Your task to perform on an android device: Open Google Maps and go to "Timeline" Image 0: 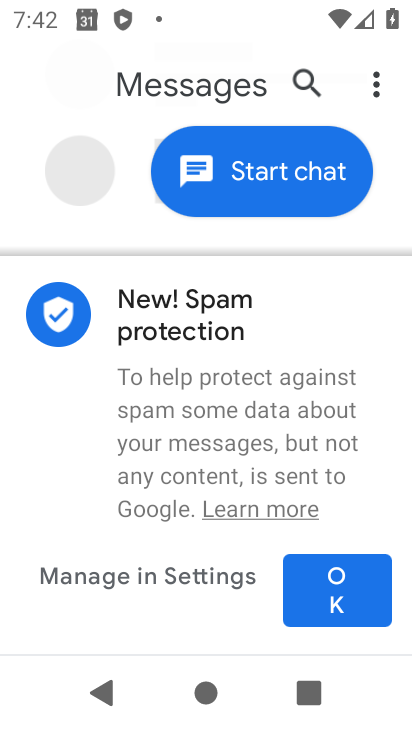
Step 0: press home button
Your task to perform on an android device: Open Google Maps and go to "Timeline" Image 1: 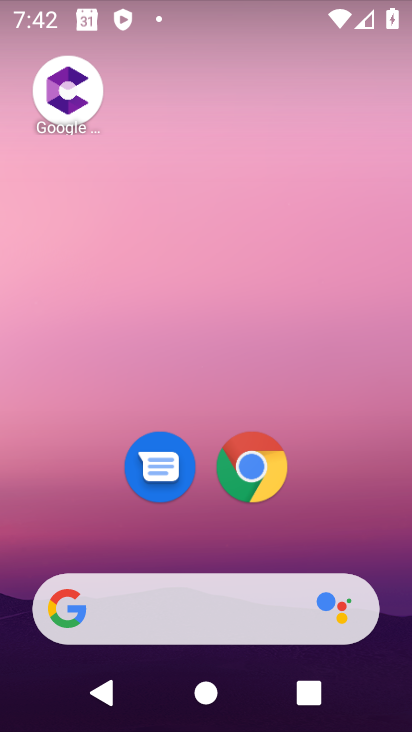
Step 1: drag from (355, 560) to (320, 19)
Your task to perform on an android device: Open Google Maps and go to "Timeline" Image 2: 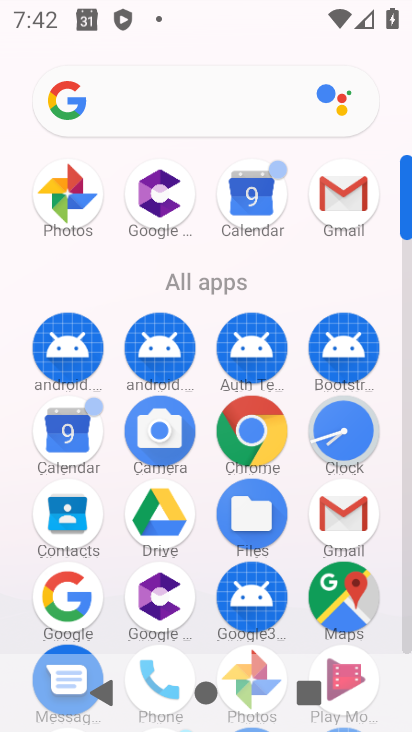
Step 2: click (343, 601)
Your task to perform on an android device: Open Google Maps and go to "Timeline" Image 3: 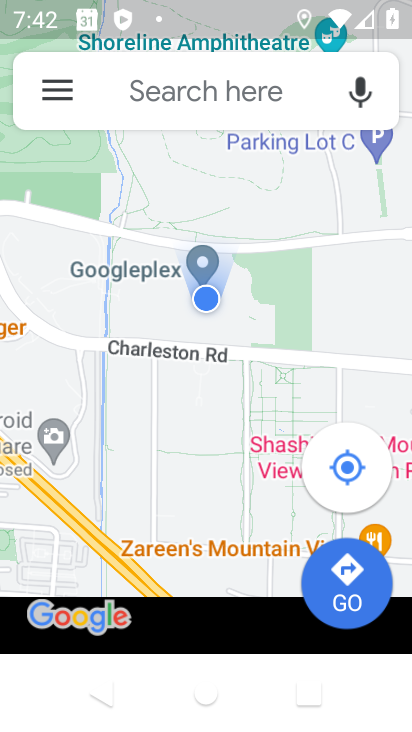
Step 3: click (56, 100)
Your task to perform on an android device: Open Google Maps and go to "Timeline" Image 4: 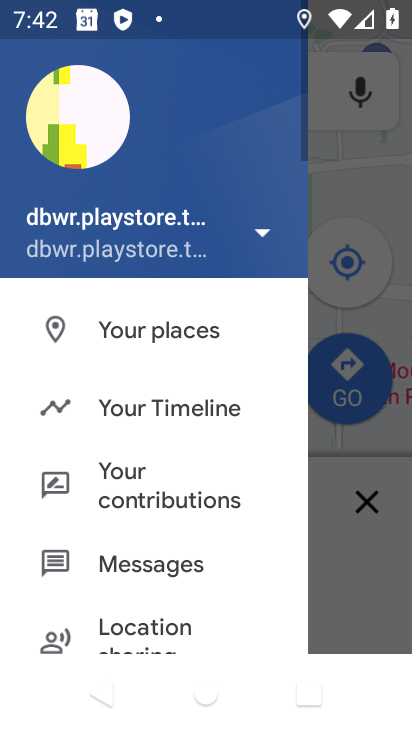
Step 4: click (105, 407)
Your task to perform on an android device: Open Google Maps and go to "Timeline" Image 5: 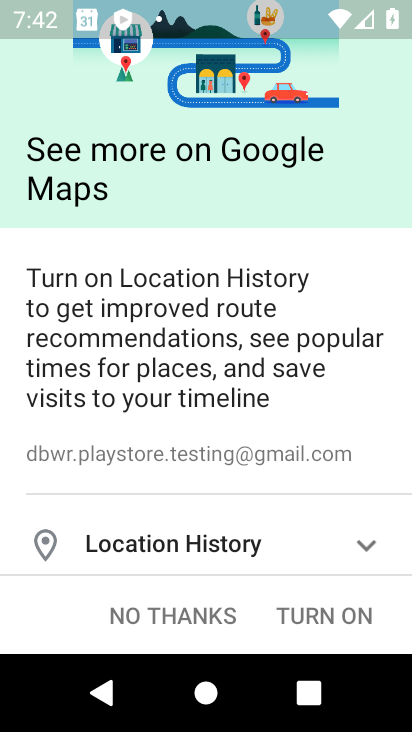
Step 5: click (139, 618)
Your task to perform on an android device: Open Google Maps and go to "Timeline" Image 6: 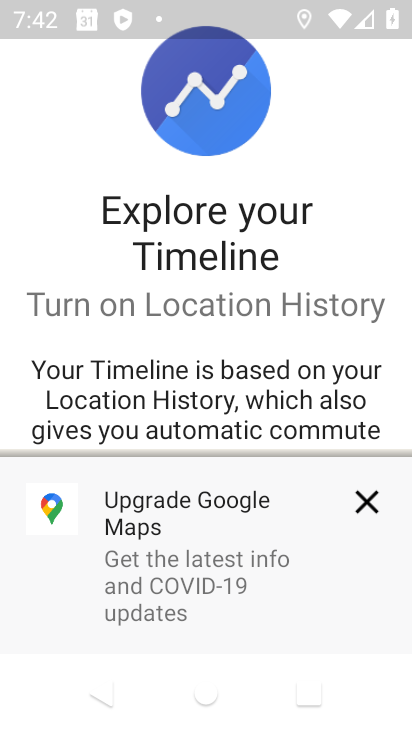
Step 6: click (367, 501)
Your task to perform on an android device: Open Google Maps and go to "Timeline" Image 7: 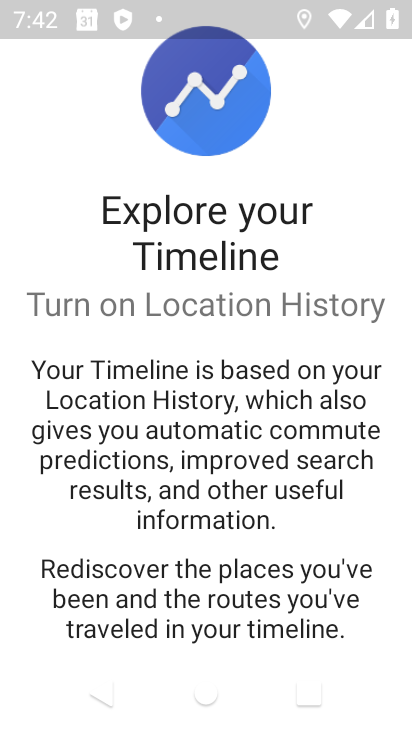
Step 7: drag from (335, 586) to (330, 251)
Your task to perform on an android device: Open Google Maps and go to "Timeline" Image 8: 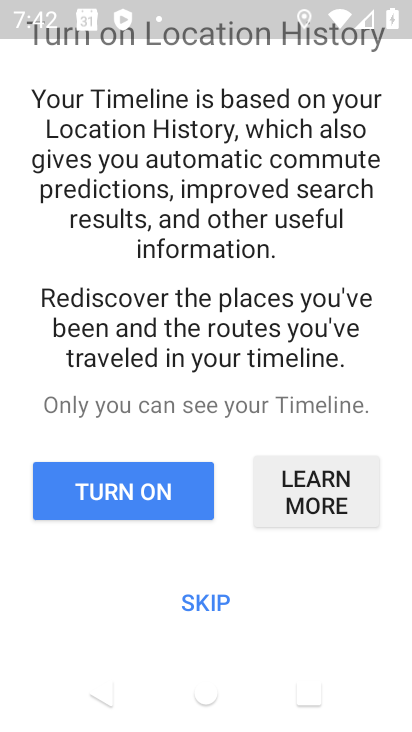
Step 8: click (215, 602)
Your task to perform on an android device: Open Google Maps and go to "Timeline" Image 9: 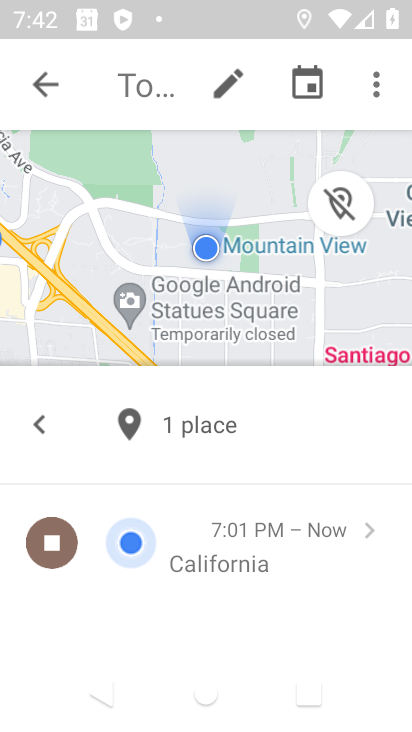
Step 9: task complete